Your task to perform on an android device: Turn off the flashlight Image 0: 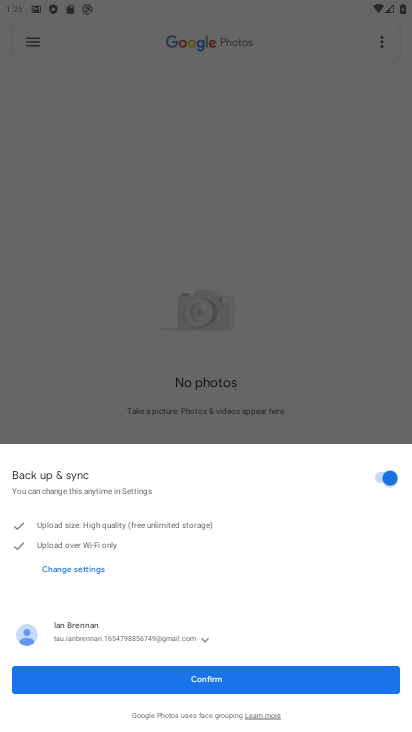
Step 0: press back button
Your task to perform on an android device: Turn off the flashlight Image 1: 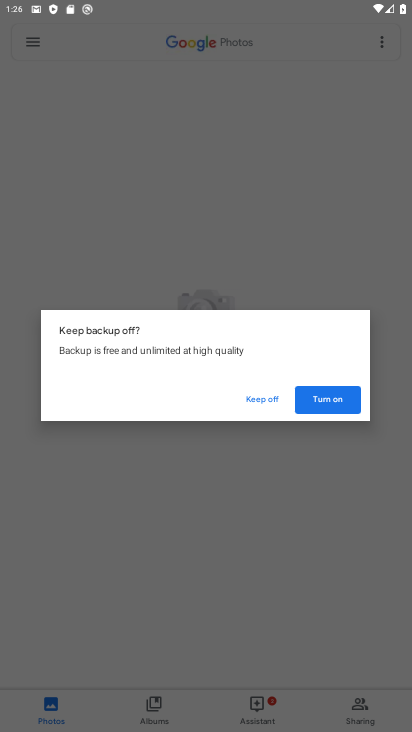
Step 1: press back button
Your task to perform on an android device: Turn off the flashlight Image 2: 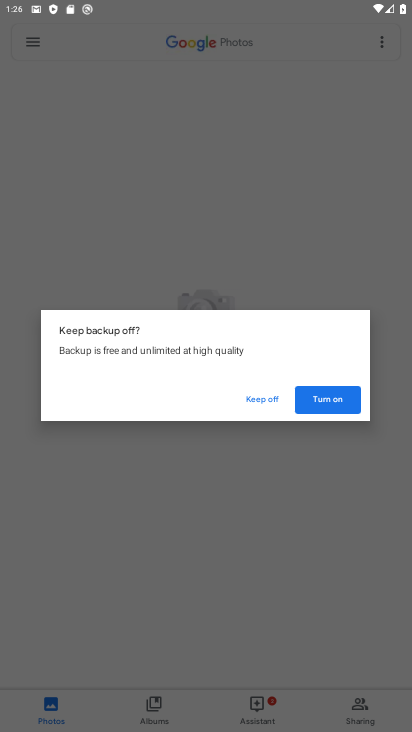
Step 2: press back button
Your task to perform on an android device: Turn off the flashlight Image 3: 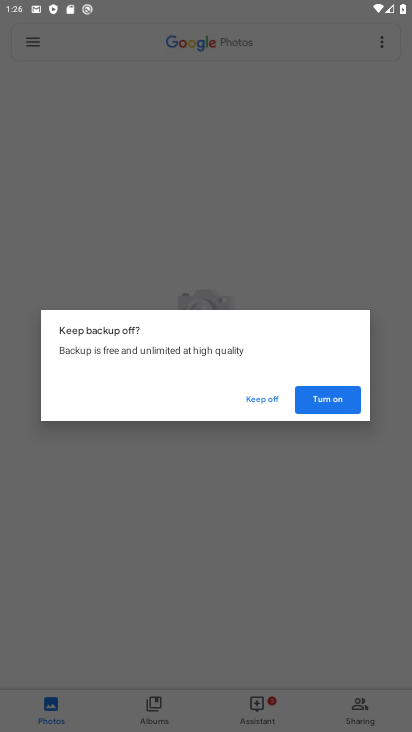
Step 3: press back button
Your task to perform on an android device: Turn off the flashlight Image 4: 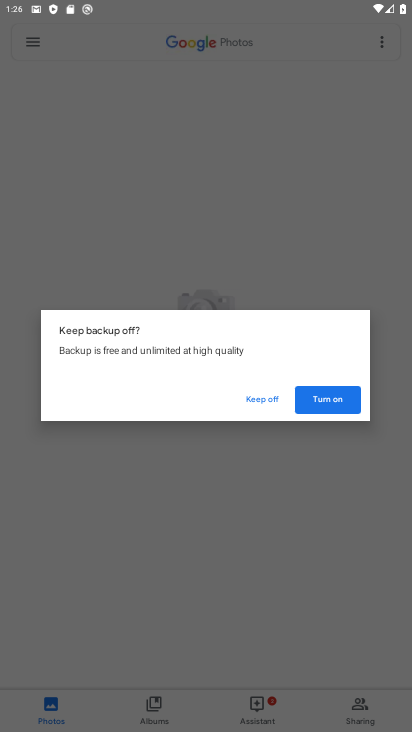
Step 4: press home button
Your task to perform on an android device: Turn off the flashlight Image 5: 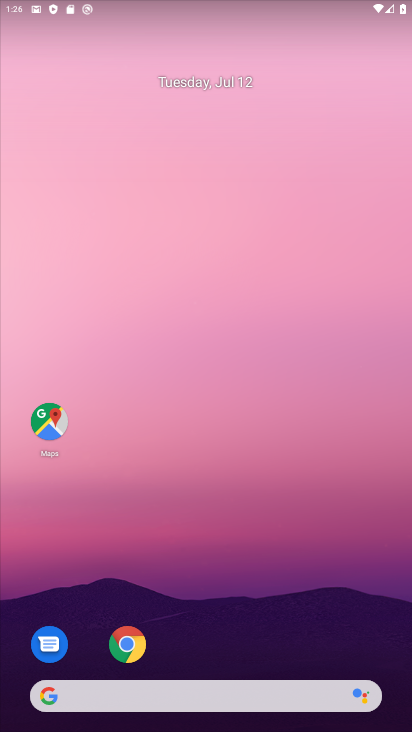
Step 5: drag from (264, 556) to (321, 2)
Your task to perform on an android device: Turn off the flashlight Image 6: 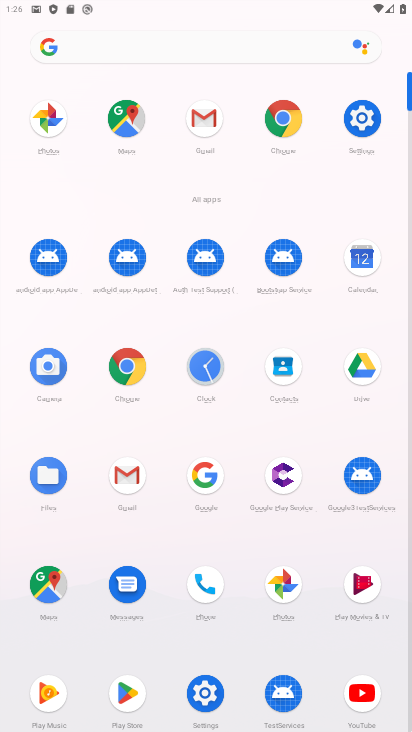
Step 6: click (352, 133)
Your task to perform on an android device: Turn off the flashlight Image 7: 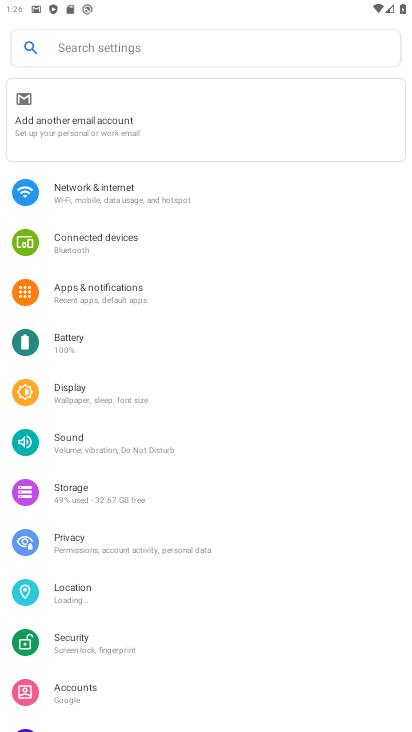
Step 7: click (144, 57)
Your task to perform on an android device: Turn off the flashlight Image 8: 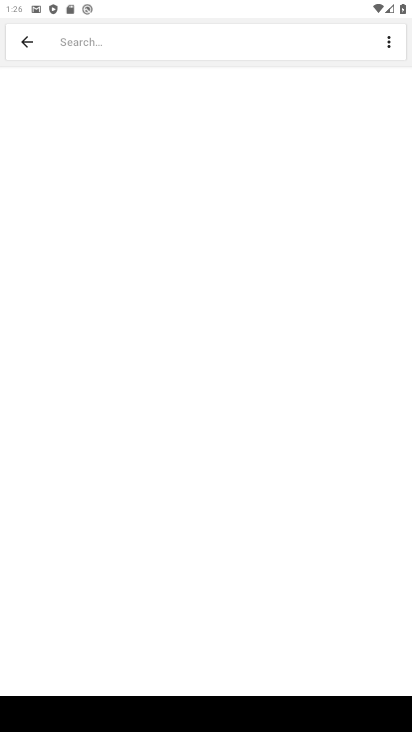
Step 8: click (113, 42)
Your task to perform on an android device: Turn off the flashlight Image 9: 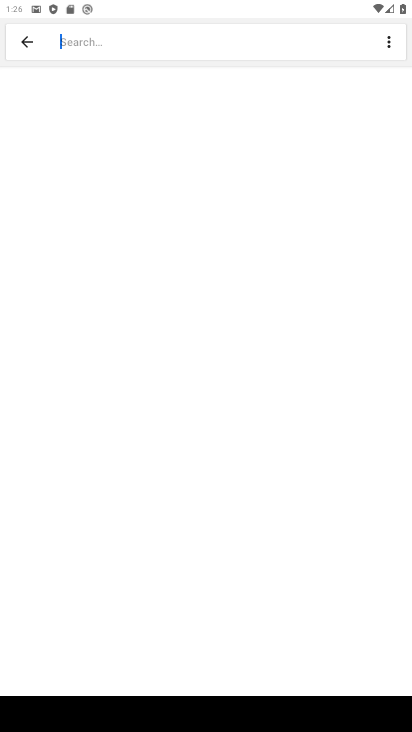
Step 9: type "flashlight"
Your task to perform on an android device: Turn off the flashlight Image 10: 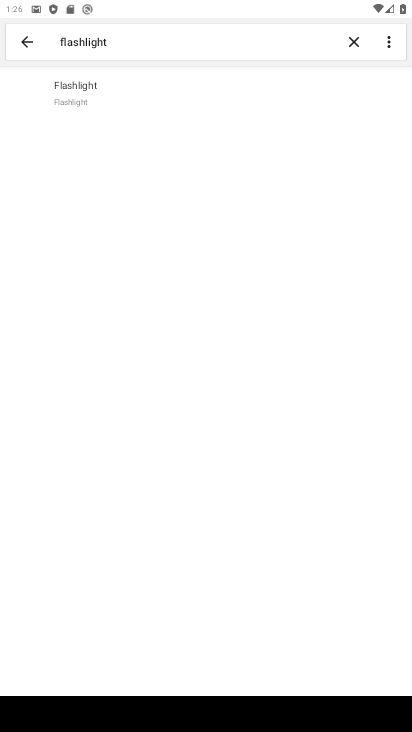
Step 10: click (65, 88)
Your task to perform on an android device: Turn off the flashlight Image 11: 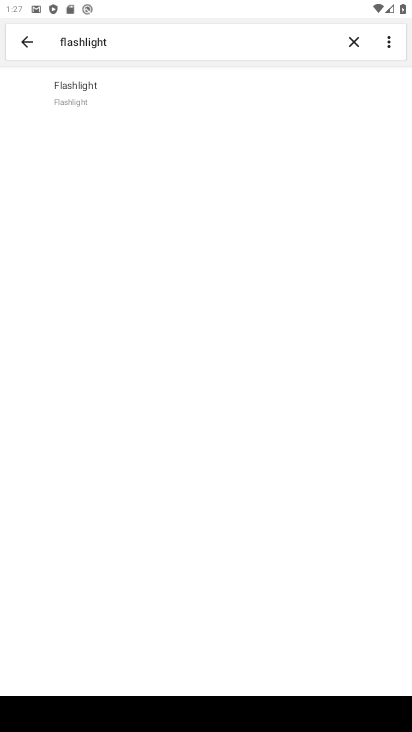
Step 11: task complete